Your task to perform on an android device: Open Chrome and go to the settings page Image 0: 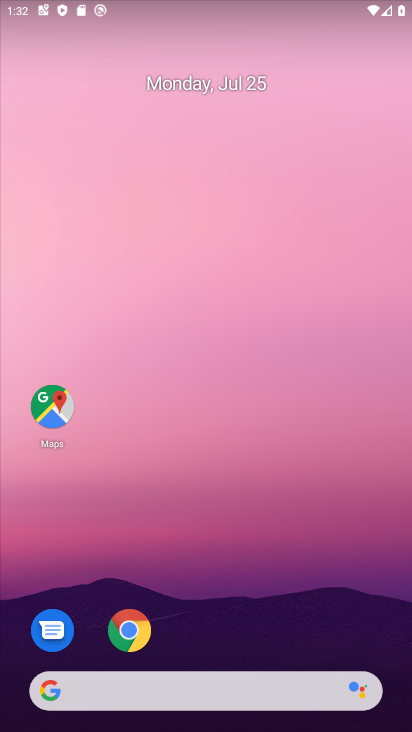
Step 0: click (128, 630)
Your task to perform on an android device: Open Chrome and go to the settings page Image 1: 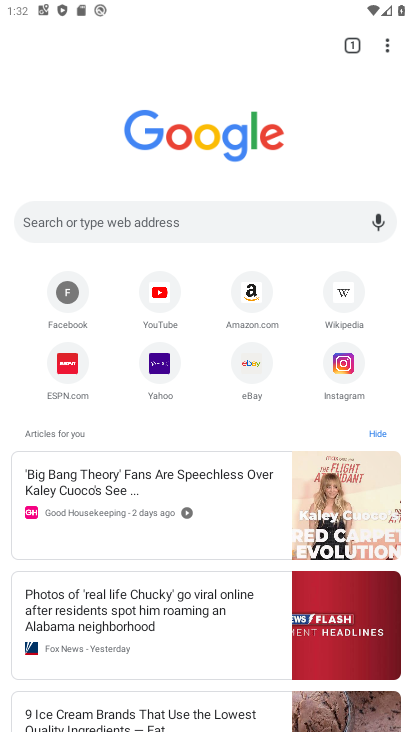
Step 1: click (381, 49)
Your task to perform on an android device: Open Chrome and go to the settings page Image 2: 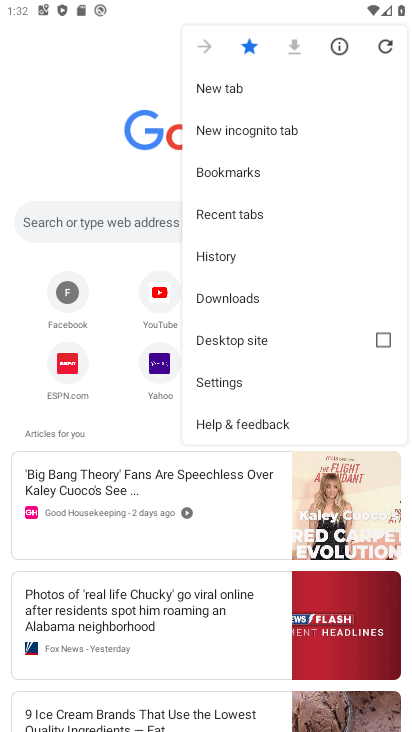
Step 2: click (220, 388)
Your task to perform on an android device: Open Chrome and go to the settings page Image 3: 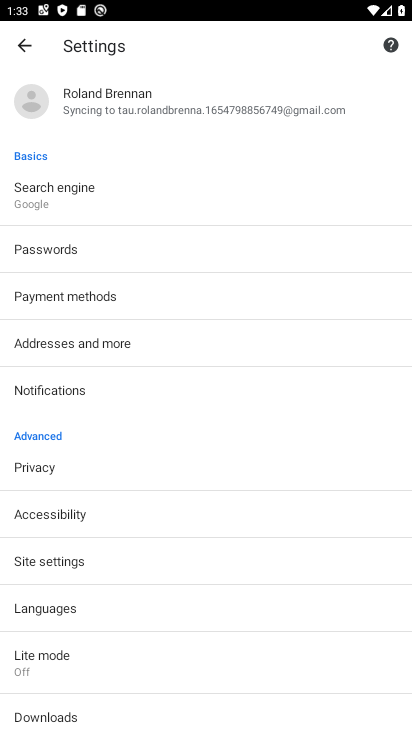
Step 3: task complete